Your task to perform on an android device: Turn off the flashlight Image 0: 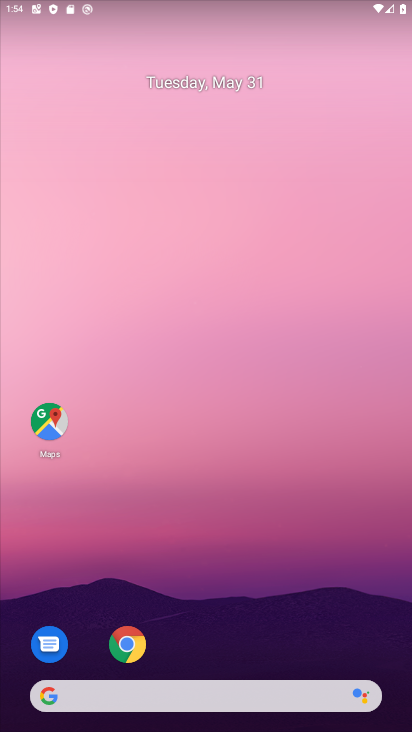
Step 0: drag from (371, 484) to (359, 182)
Your task to perform on an android device: Turn off the flashlight Image 1: 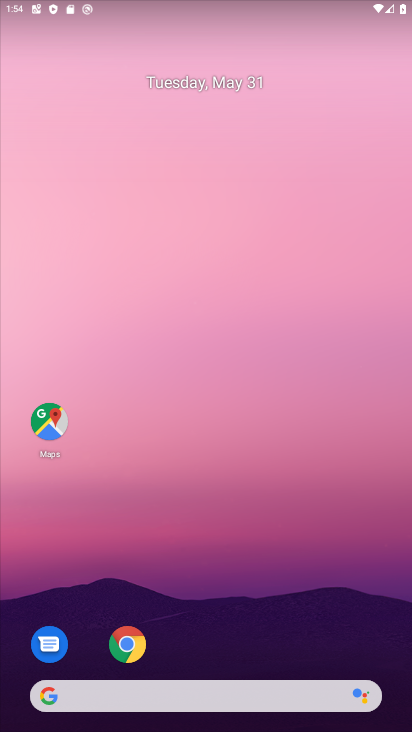
Step 1: drag from (393, 703) to (333, 206)
Your task to perform on an android device: Turn off the flashlight Image 2: 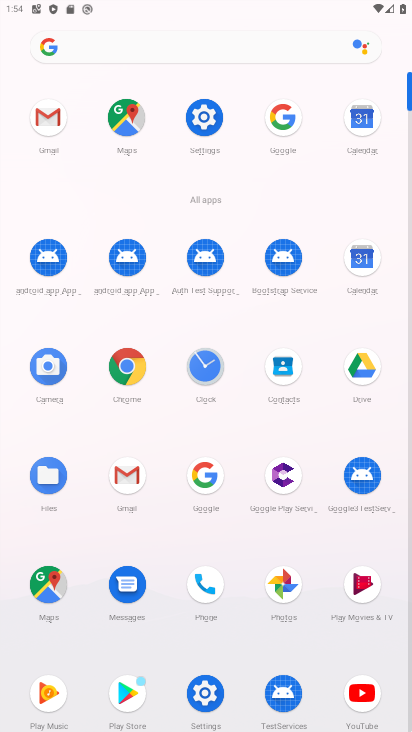
Step 2: click (203, 122)
Your task to perform on an android device: Turn off the flashlight Image 3: 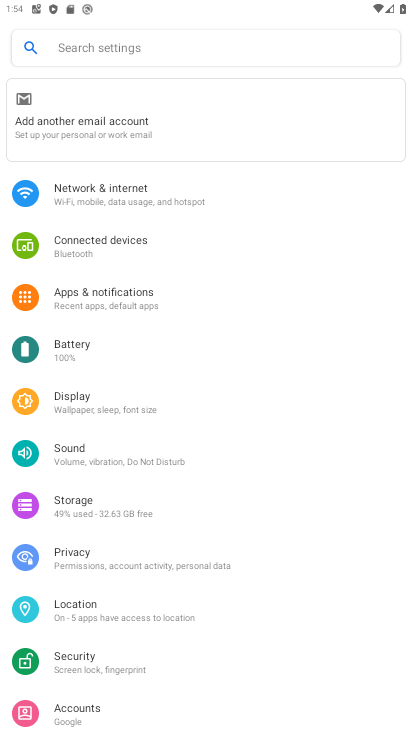
Step 3: click (77, 411)
Your task to perform on an android device: Turn off the flashlight Image 4: 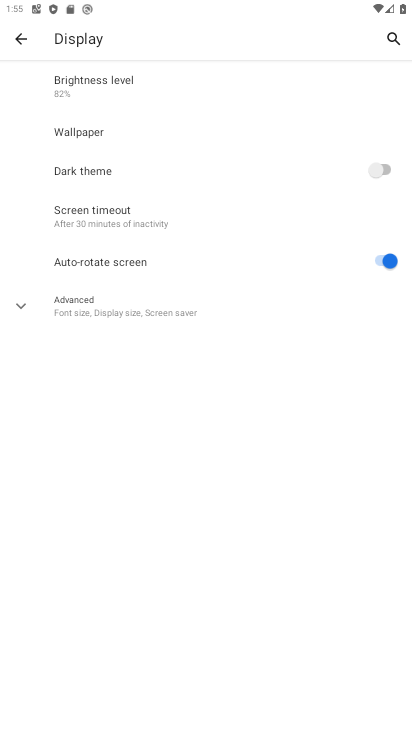
Step 4: task complete